Your task to perform on an android device: choose inbox layout in the gmail app Image 0: 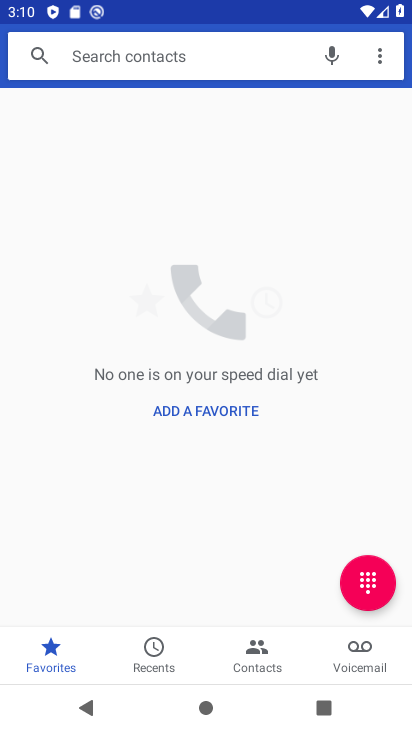
Step 0: press home button
Your task to perform on an android device: choose inbox layout in the gmail app Image 1: 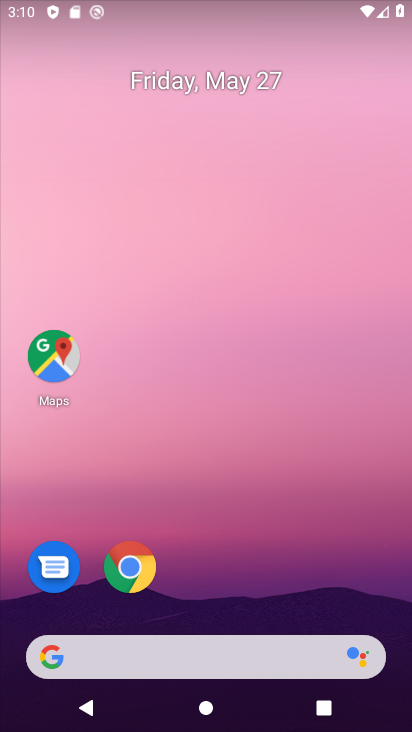
Step 1: drag from (359, 580) to (320, 36)
Your task to perform on an android device: choose inbox layout in the gmail app Image 2: 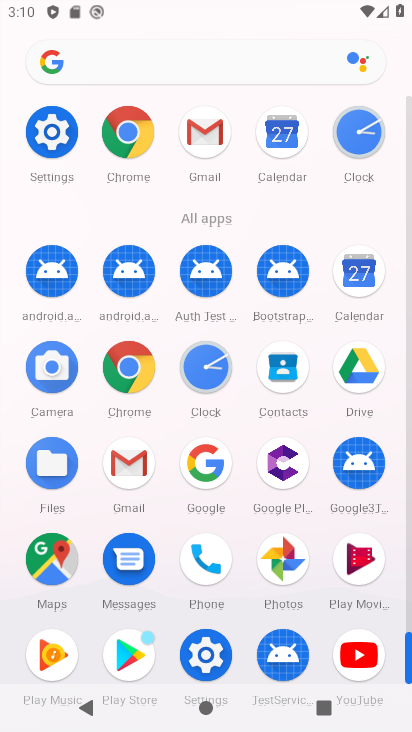
Step 2: click (129, 468)
Your task to perform on an android device: choose inbox layout in the gmail app Image 3: 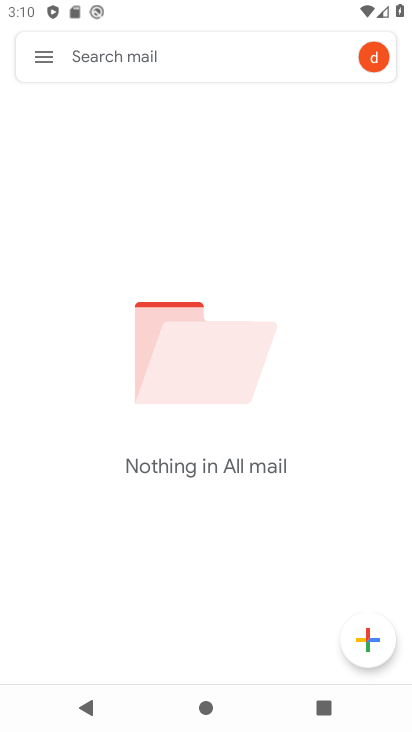
Step 3: click (46, 57)
Your task to perform on an android device: choose inbox layout in the gmail app Image 4: 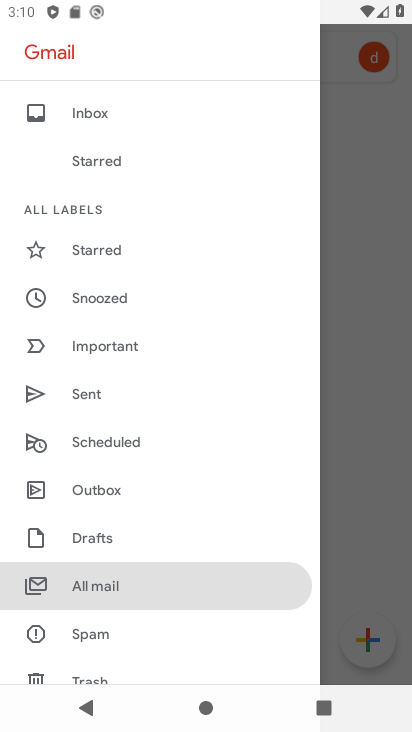
Step 4: drag from (208, 545) to (195, 117)
Your task to perform on an android device: choose inbox layout in the gmail app Image 5: 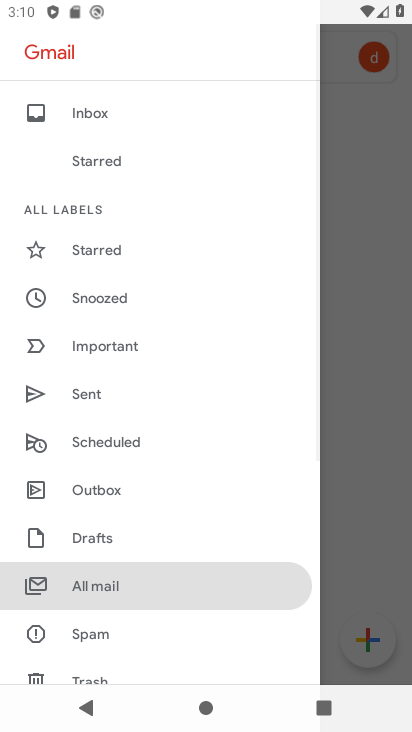
Step 5: drag from (229, 494) to (248, 136)
Your task to perform on an android device: choose inbox layout in the gmail app Image 6: 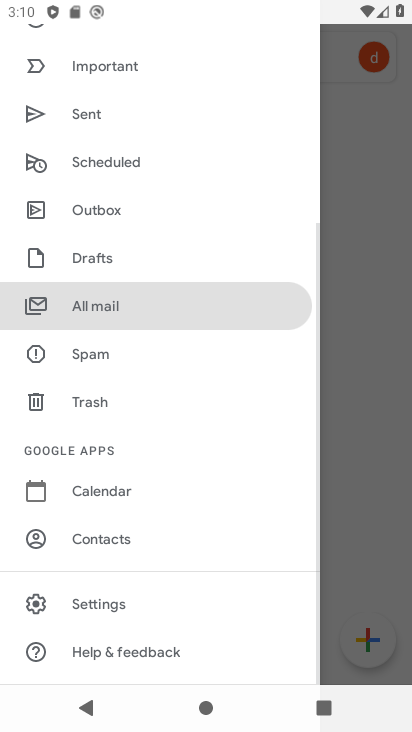
Step 6: click (85, 588)
Your task to perform on an android device: choose inbox layout in the gmail app Image 7: 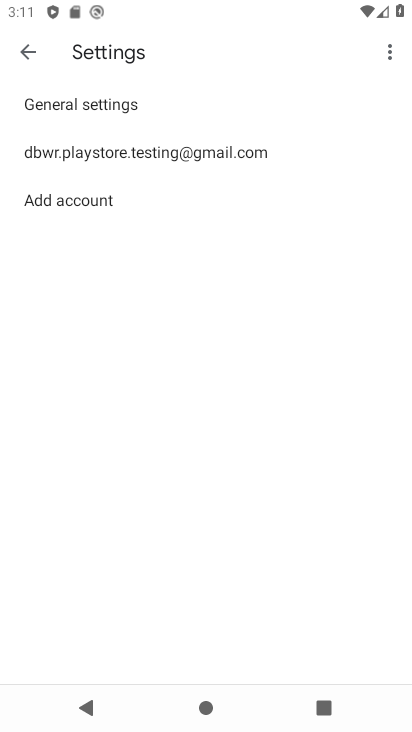
Step 7: click (111, 153)
Your task to perform on an android device: choose inbox layout in the gmail app Image 8: 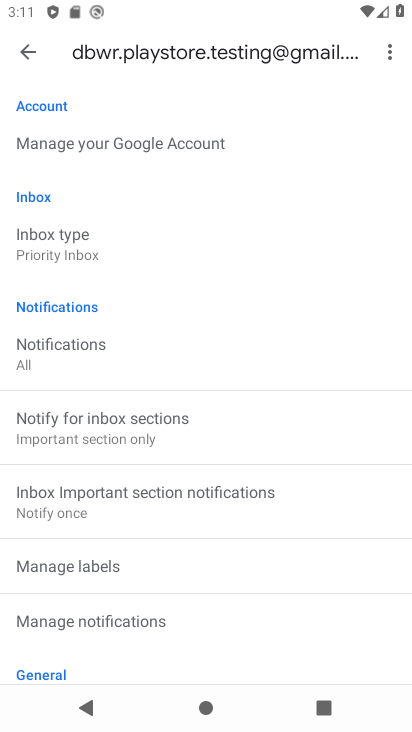
Step 8: click (54, 239)
Your task to perform on an android device: choose inbox layout in the gmail app Image 9: 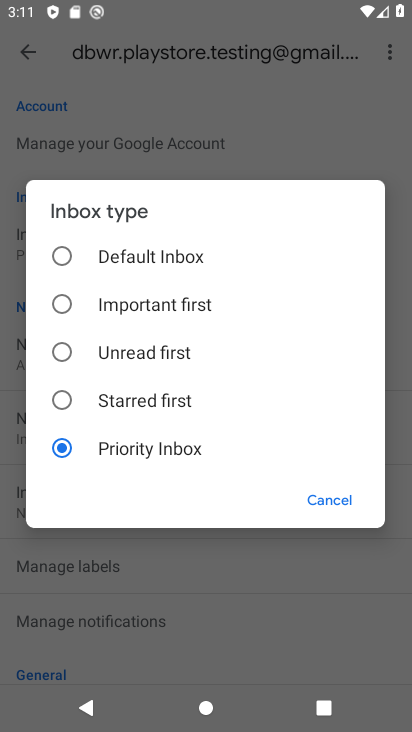
Step 9: click (61, 254)
Your task to perform on an android device: choose inbox layout in the gmail app Image 10: 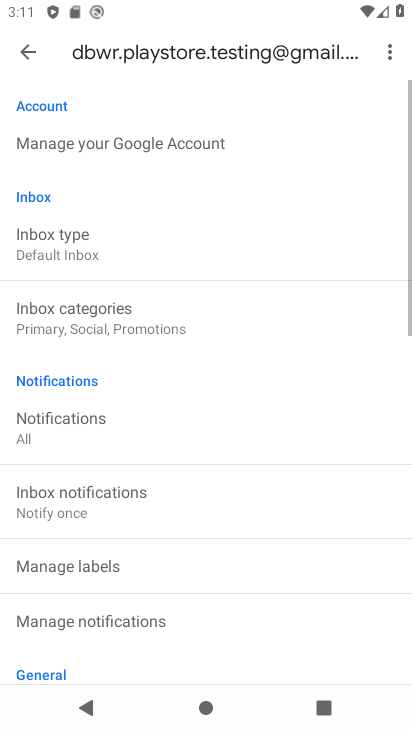
Step 10: task complete